Your task to perform on an android device: turn off location history Image 0: 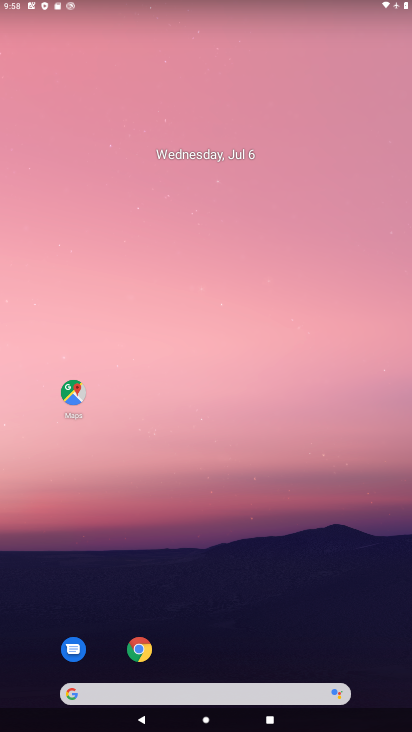
Step 0: drag from (408, 630) to (388, 139)
Your task to perform on an android device: turn off location history Image 1: 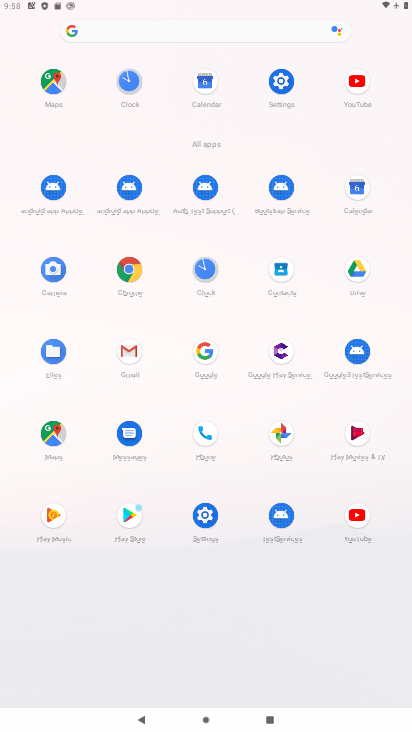
Step 1: click (273, 79)
Your task to perform on an android device: turn off location history Image 2: 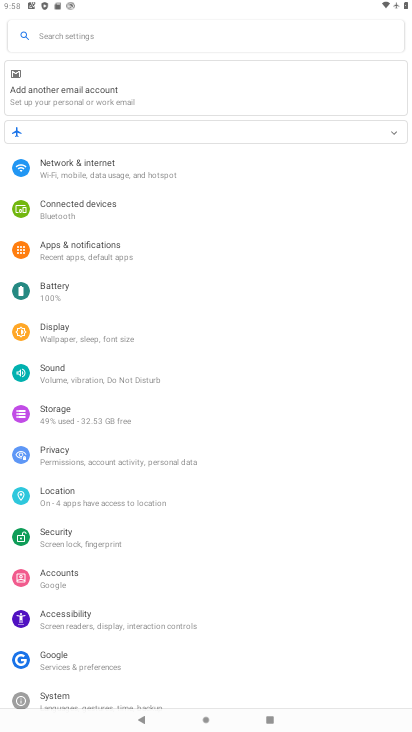
Step 2: drag from (234, 651) to (255, 199)
Your task to perform on an android device: turn off location history Image 3: 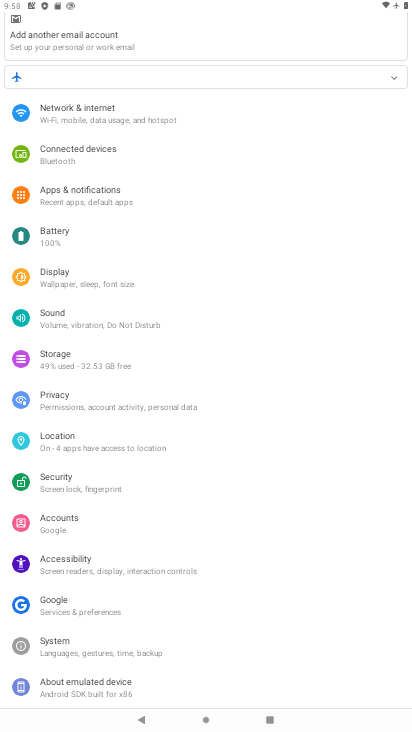
Step 3: click (62, 444)
Your task to perform on an android device: turn off location history Image 4: 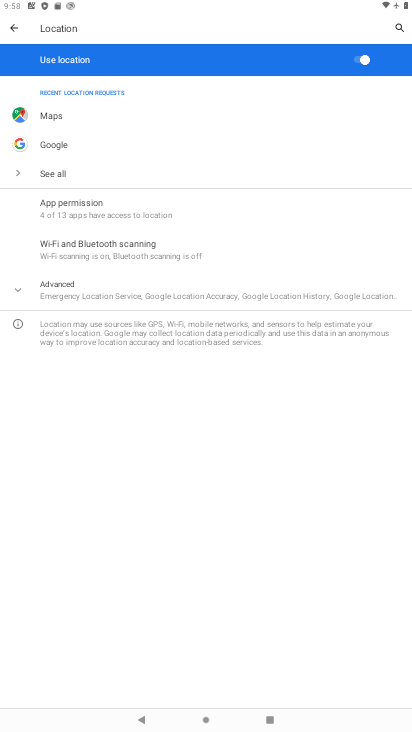
Step 4: click (362, 61)
Your task to perform on an android device: turn off location history Image 5: 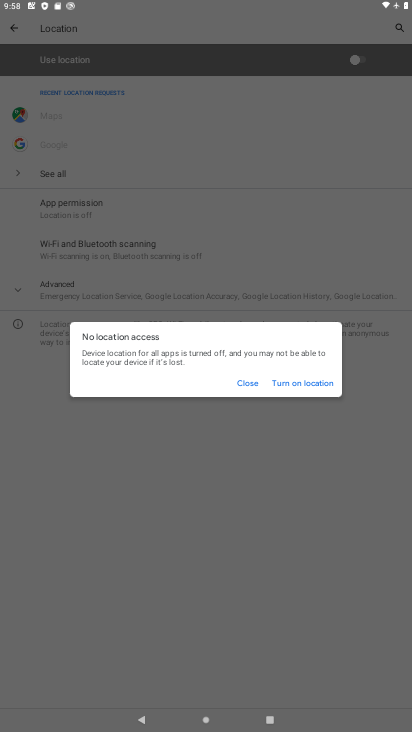
Step 5: task complete